Your task to perform on an android device: Open Android settings Image 0: 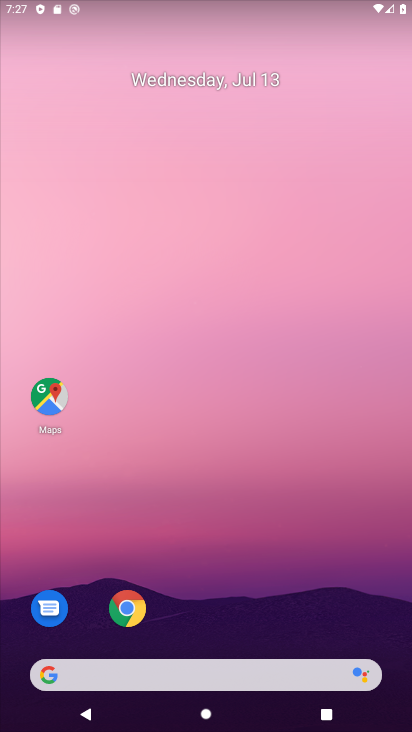
Step 0: drag from (271, 548) to (242, 121)
Your task to perform on an android device: Open Android settings Image 1: 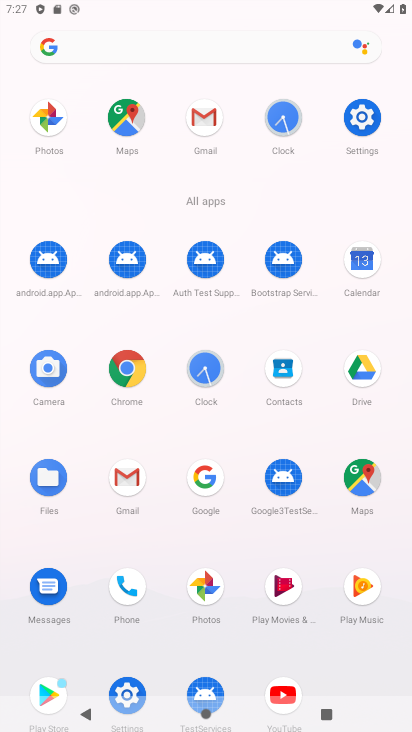
Step 1: click (365, 113)
Your task to perform on an android device: Open Android settings Image 2: 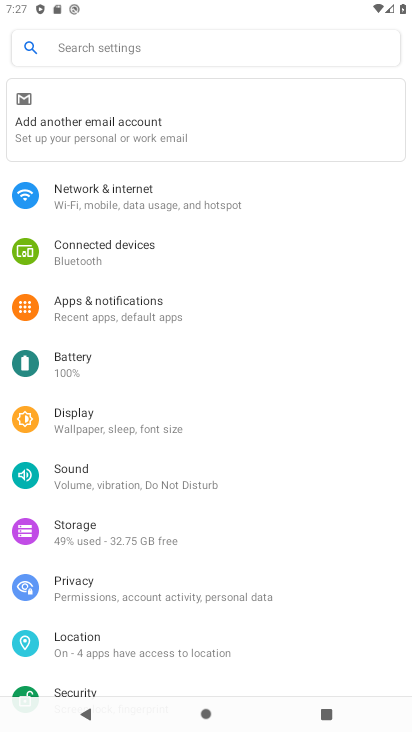
Step 2: task complete